Your task to perform on an android device: Search for a new blush on Sephora Image 0: 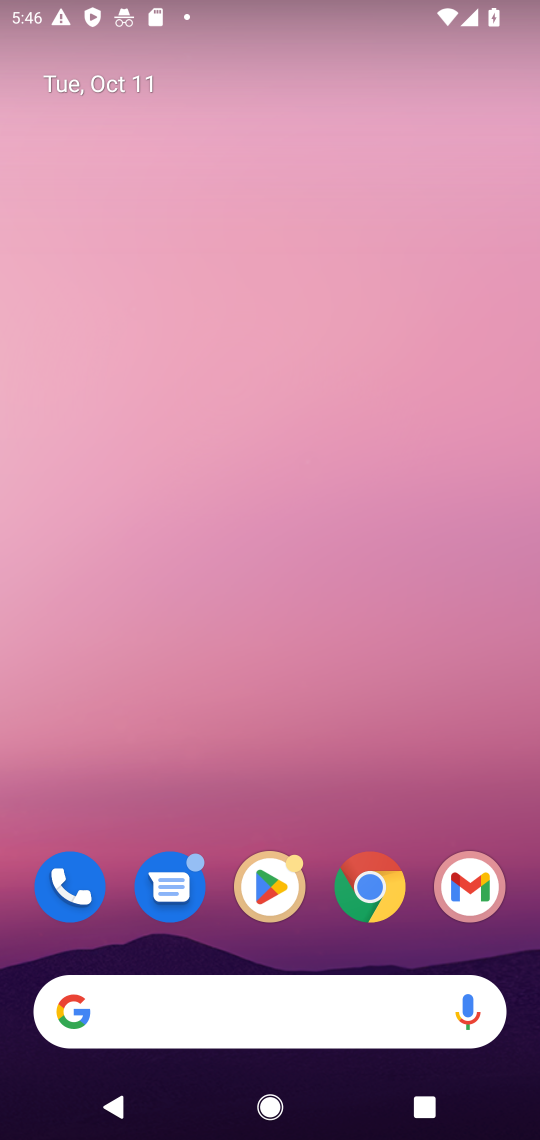
Step 0: click (250, 1005)
Your task to perform on an android device: Search for a new blush on Sephora Image 1: 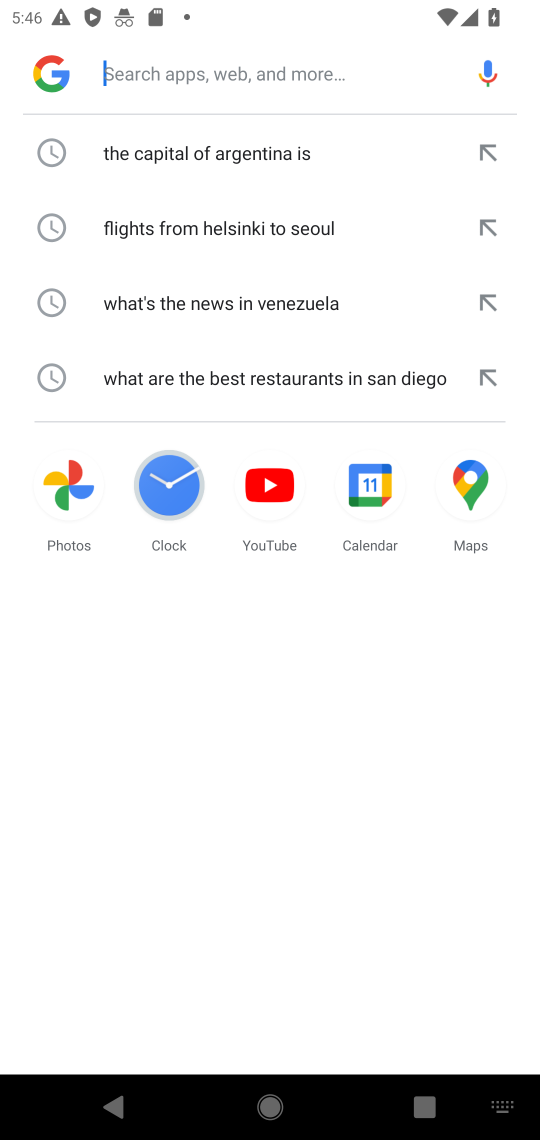
Step 1: click (250, 1005)
Your task to perform on an android device: Search for a new blush on Sephora Image 2: 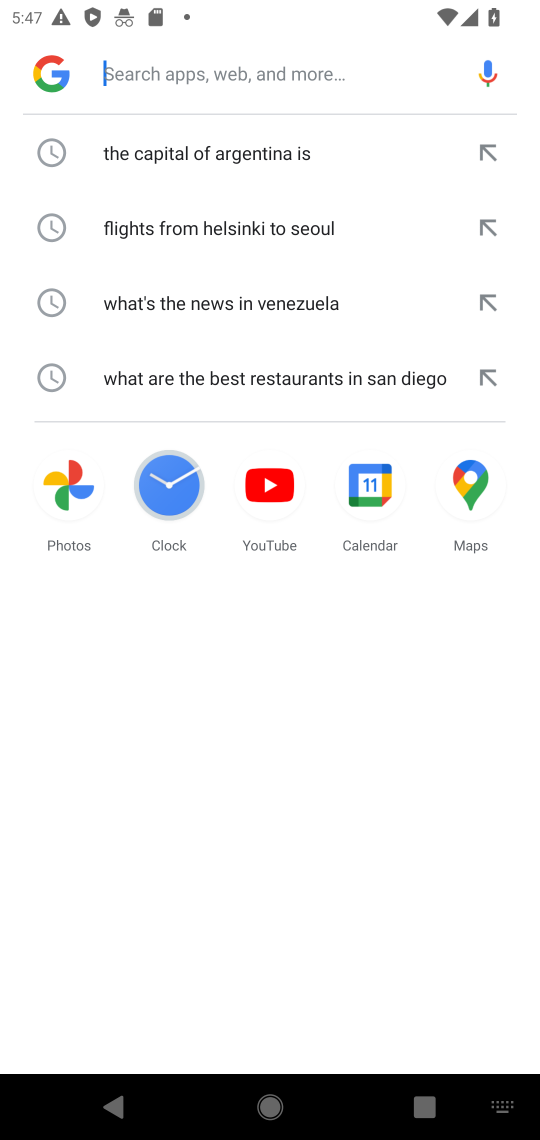
Step 2: type " a new blush on Sephora"
Your task to perform on an android device: Search for a new blush on Sephora Image 3: 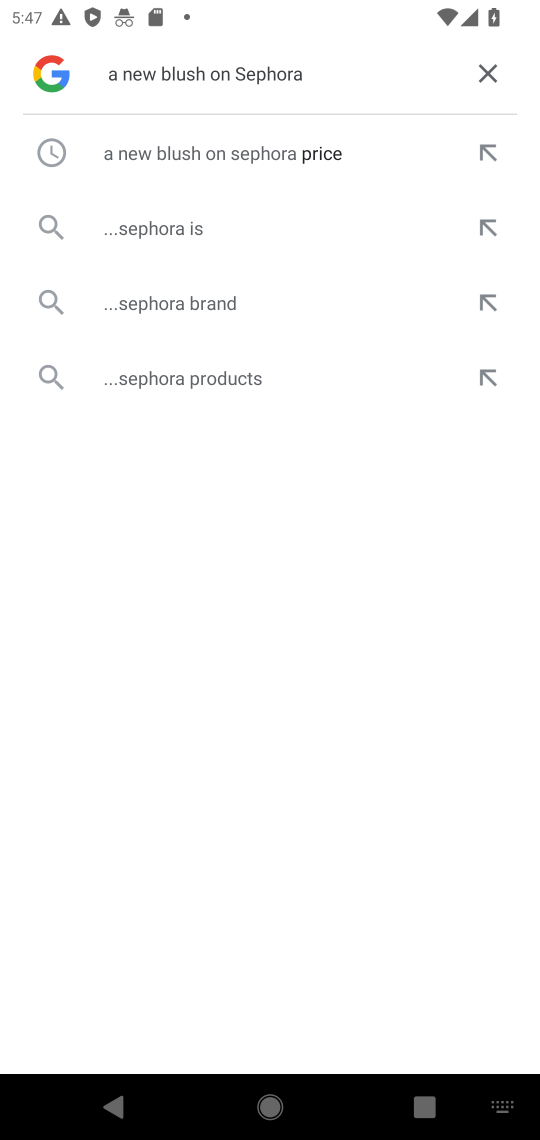
Step 3: click (162, 227)
Your task to perform on an android device: Search for a new blush on Sephora Image 4: 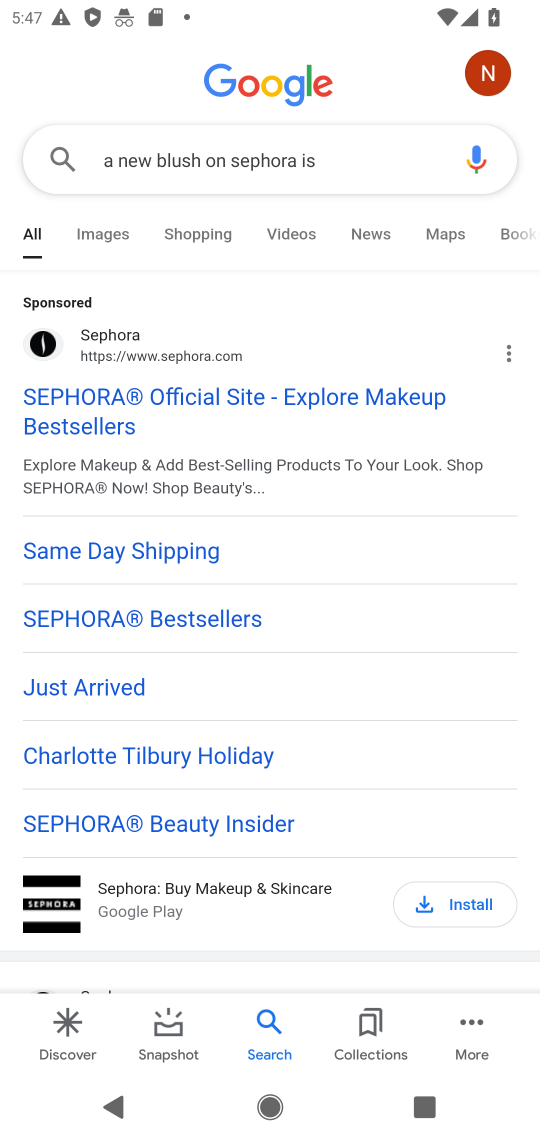
Step 4: task complete